Your task to perform on an android device: Turn off the flashlight Image 0: 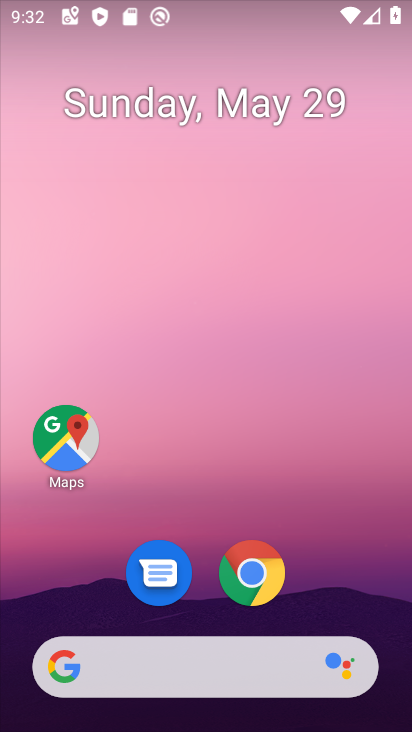
Step 0: drag from (255, 80) to (228, 681)
Your task to perform on an android device: Turn off the flashlight Image 1: 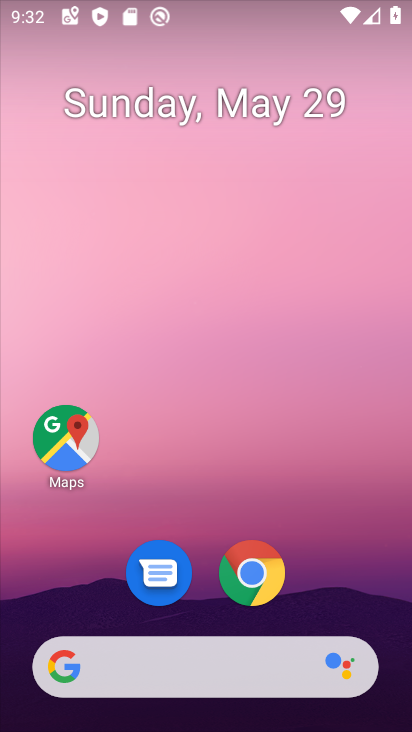
Step 1: task complete